Your task to perform on an android device: Go to Wikipedia Image 0: 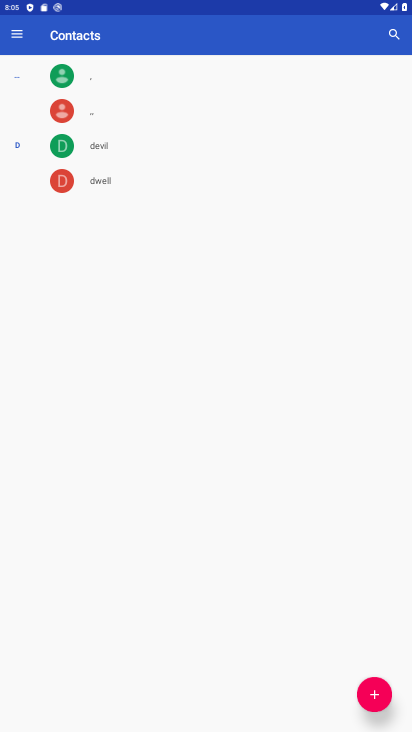
Step 0: press home button
Your task to perform on an android device: Go to Wikipedia Image 1: 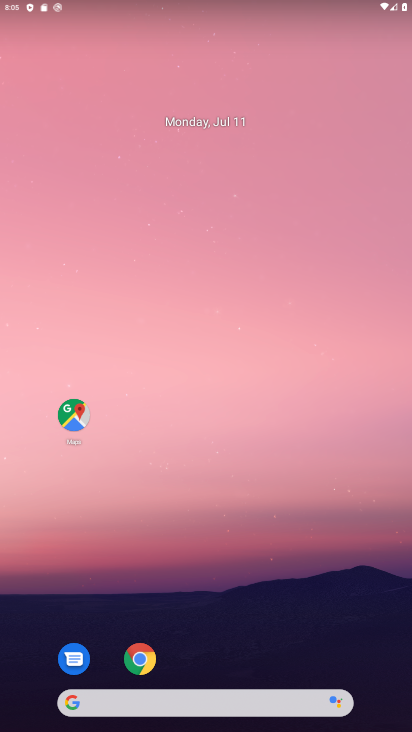
Step 1: click (142, 700)
Your task to perform on an android device: Go to Wikipedia Image 2: 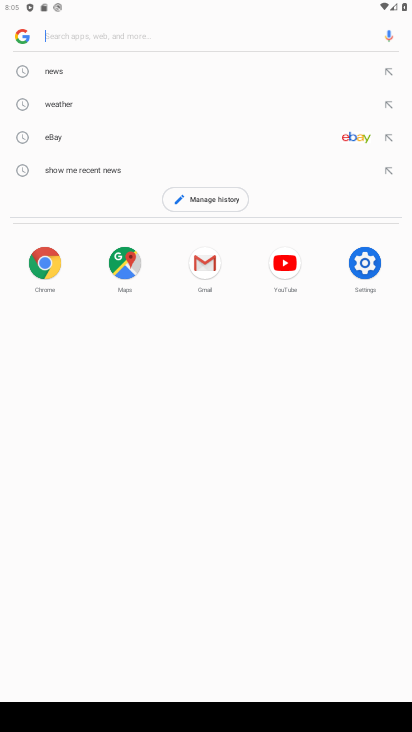
Step 2: type "Wikipedia"
Your task to perform on an android device: Go to Wikipedia Image 3: 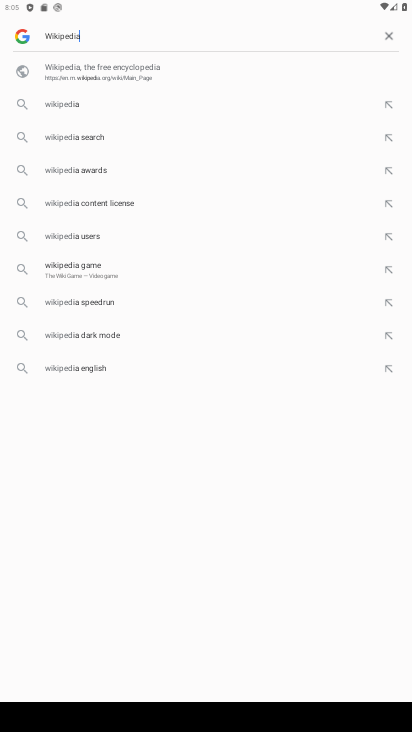
Step 3: type ""
Your task to perform on an android device: Go to Wikipedia Image 4: 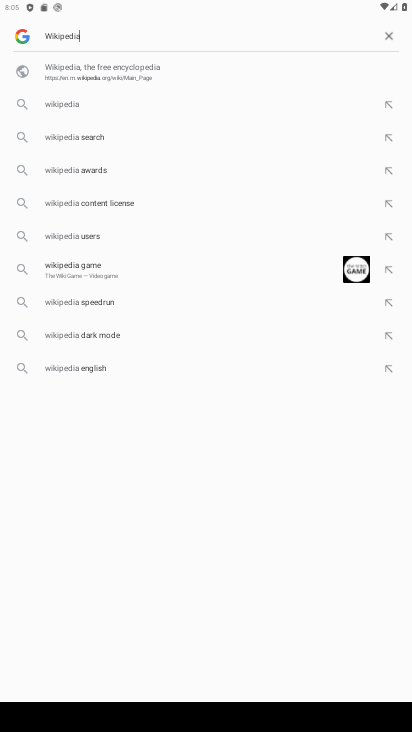
Step 4: click (75, 99)
Your task to perform on an android device: Go to Wikipedia Image 5: 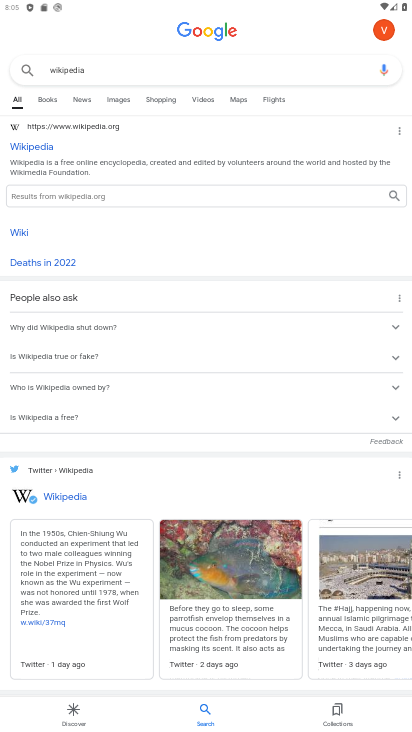
Step 5: task complete